Your task to perform on an android device: turn on showing notifications on the lock screen Image 0: 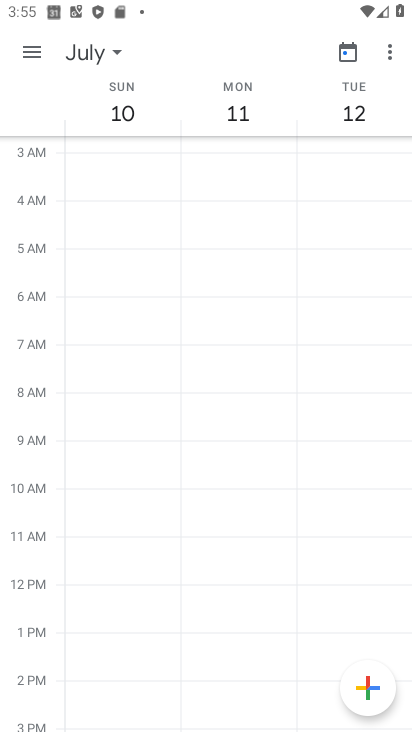
Step 0: press home button
Your task to perform on an android device: turn on showing notifications on the lock screen Image 1: 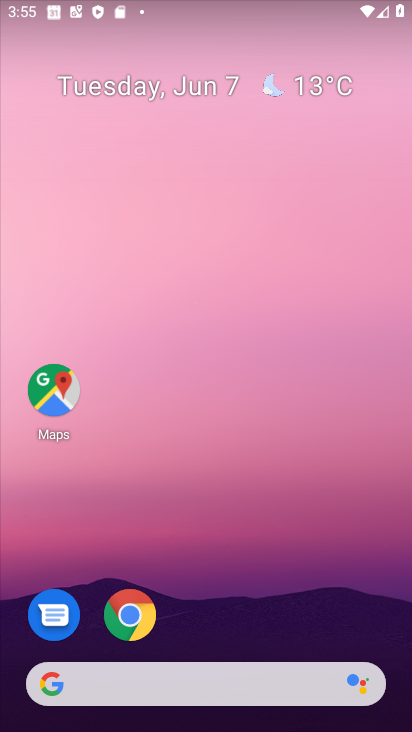
Step 1: drag from (213, 617) to (410, 20)
Your task to perform on an android device: turn on showing notifications on the lock screen Image 2: 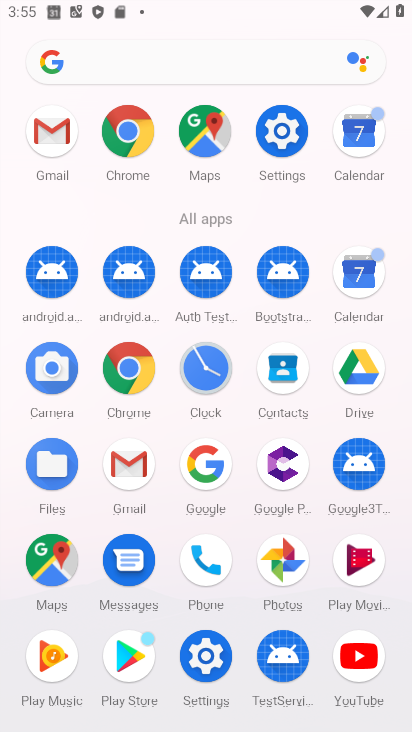
Step 2: click (197, 659)
Your task to perform on an android device: turn on showing notifications on the lock screen Image 3: 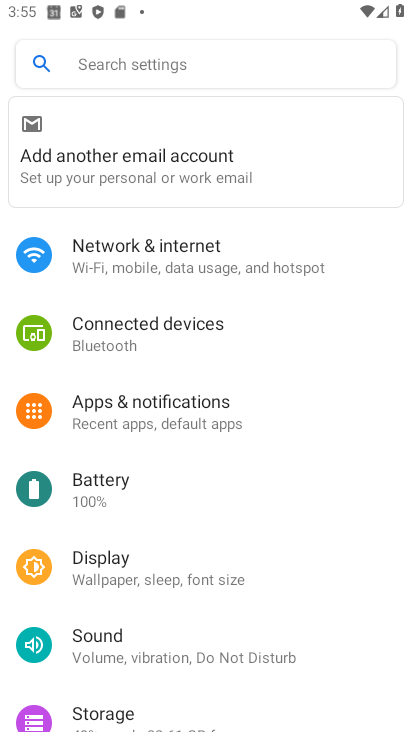
Step 3: click (204, 426)
Your task to perform on an android device: turn on showing notifications on the lock screen Image 4: 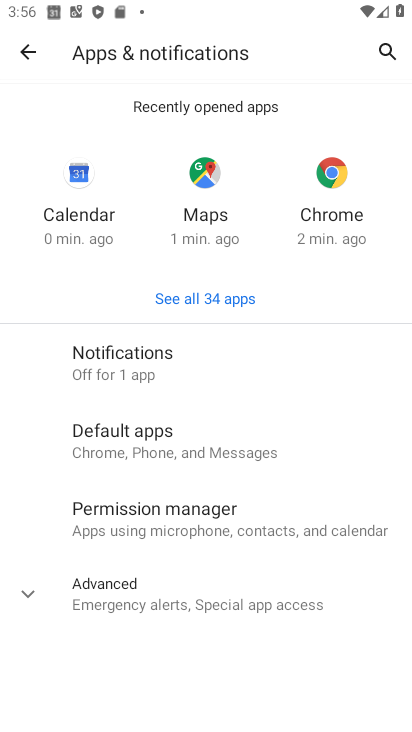
Step 4: click (163, 358)
Your task to perform on an android device: turn on showing notifications on the lock screen Image 5: 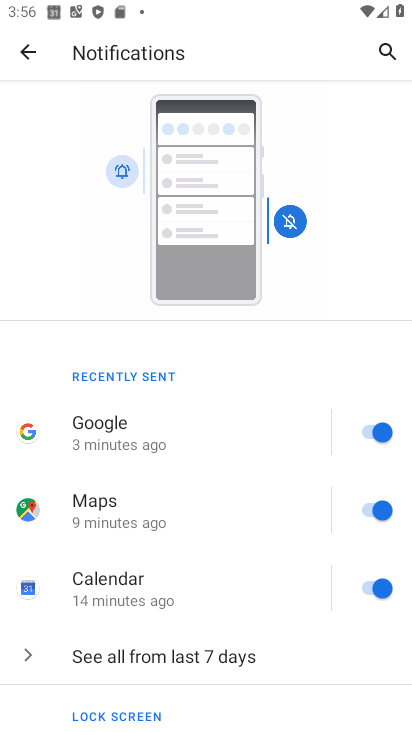
Step 5: drag from (157, 544) to (195, 123)
Your task to perform on an android device: turn on showing notifications on the lock screen Image 6: 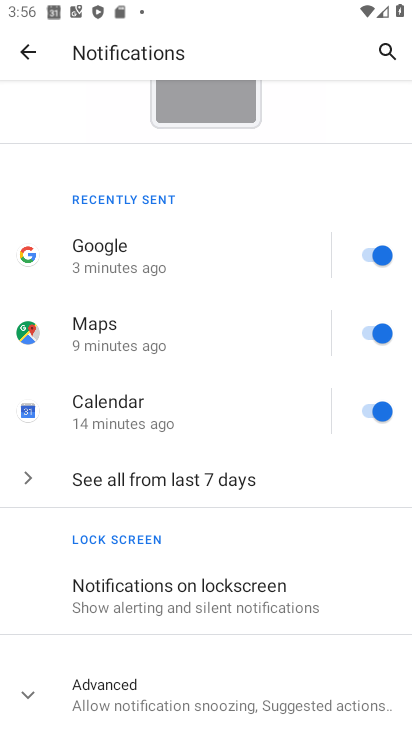
Step 6: click (247, 599)
Your task to perform on an android device: turn on showing notifications on the lock screen Image 7: 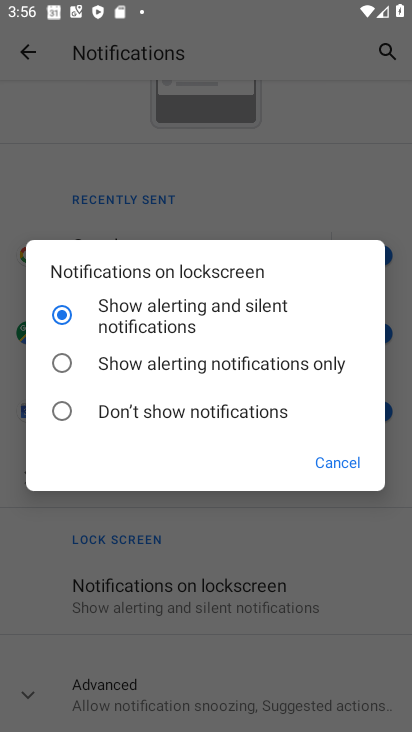
Step 7: task complete